Your task to perform on an android device: Open Yahoo.com Image 0: 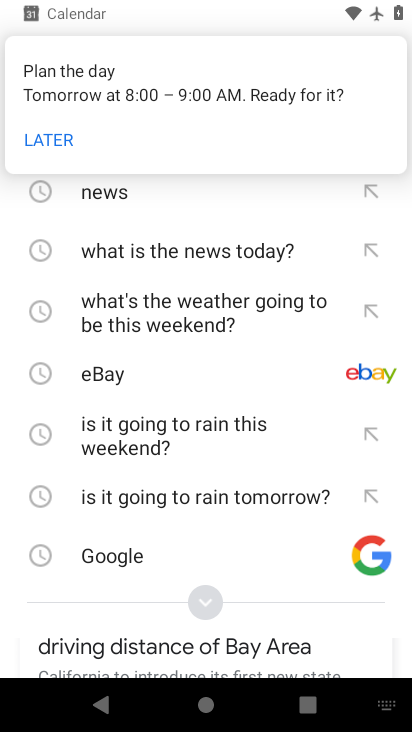
Step 0: press back button
Your task to perform on an android device: Open Yahoo.com Image 1: 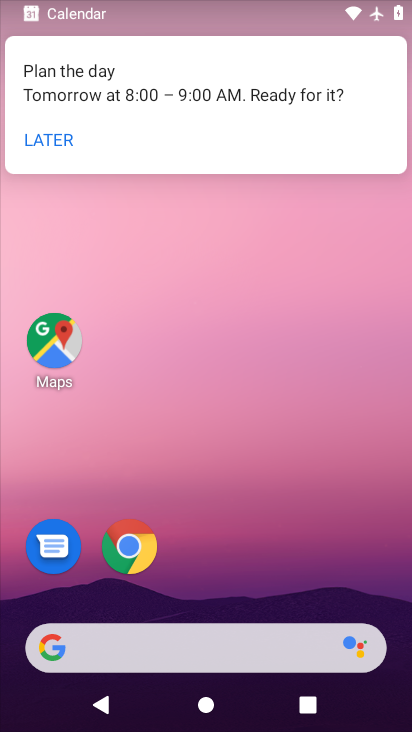
Step 1: click (141, 546)
Your task to perform on an android device: Open Yahoo.com Image 2: 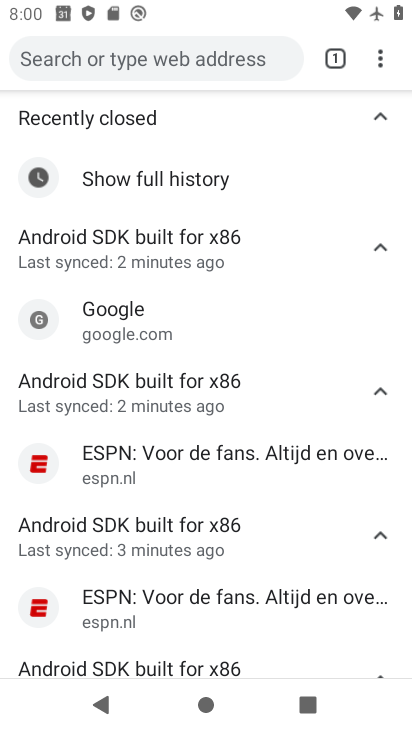
Step 2: click (151, 66)
Your task to perform on an android device: Open Yahoo.com Image 3: 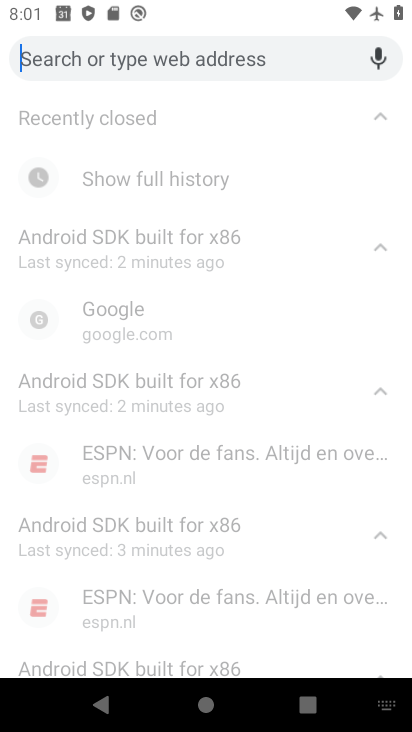
Step 3: type "yahoo.com"
Your task to perform on an android device: Open Yahoo.com Image 4: 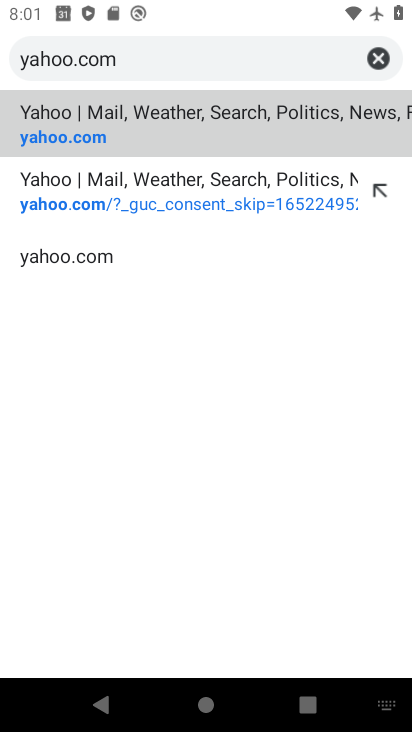
Step 4: click (199, 133)
Your task to perform on an android device: Open Yahoo.com Image 5: 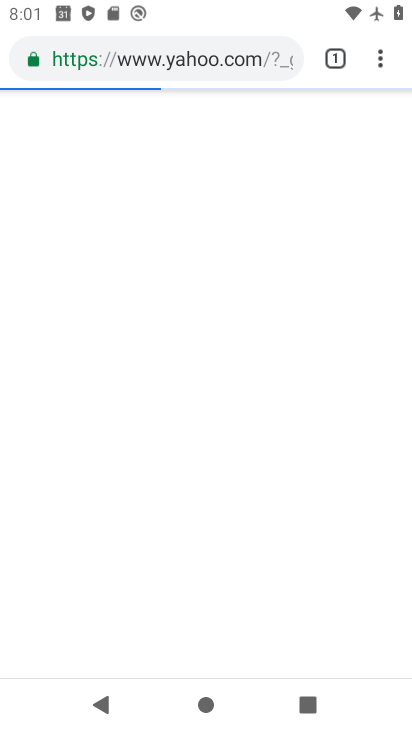
Step 5: task complete